Your task to perform on an android device: Search for macbook pro on target.com, select the first entry, and add it to the cart. Image 0: 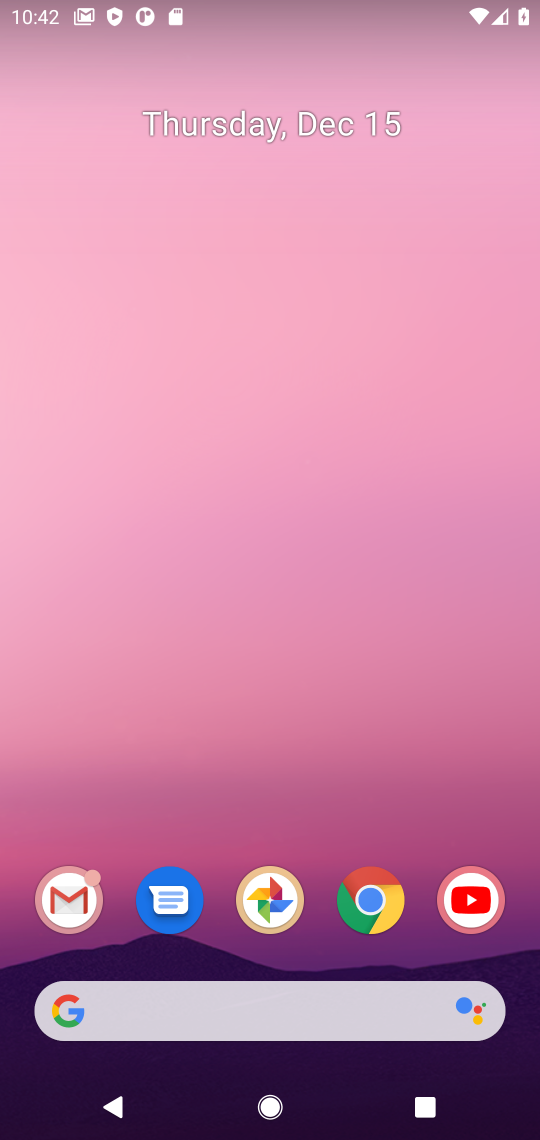
Step 0: click (389, 902)
Your task to perform on an android device: Search for macbook pro on target.com, select the first entry, and add it to the cart. Image 1: 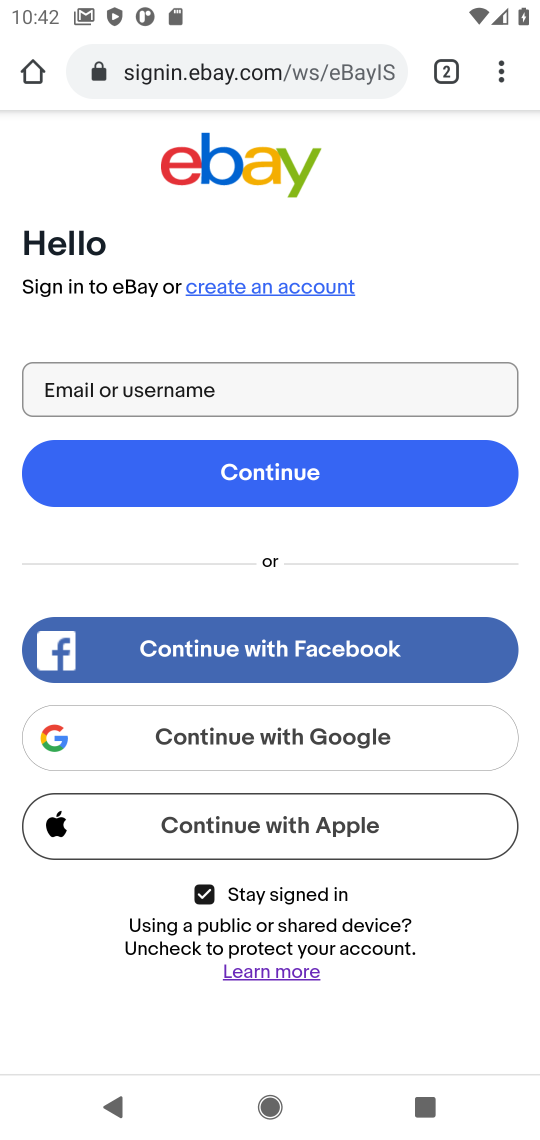
Step 1: click (168, 70)
Your task to perform on an android device: Search for macbook pro on target.com, select the first entry, and add it to the cart. Image 2: 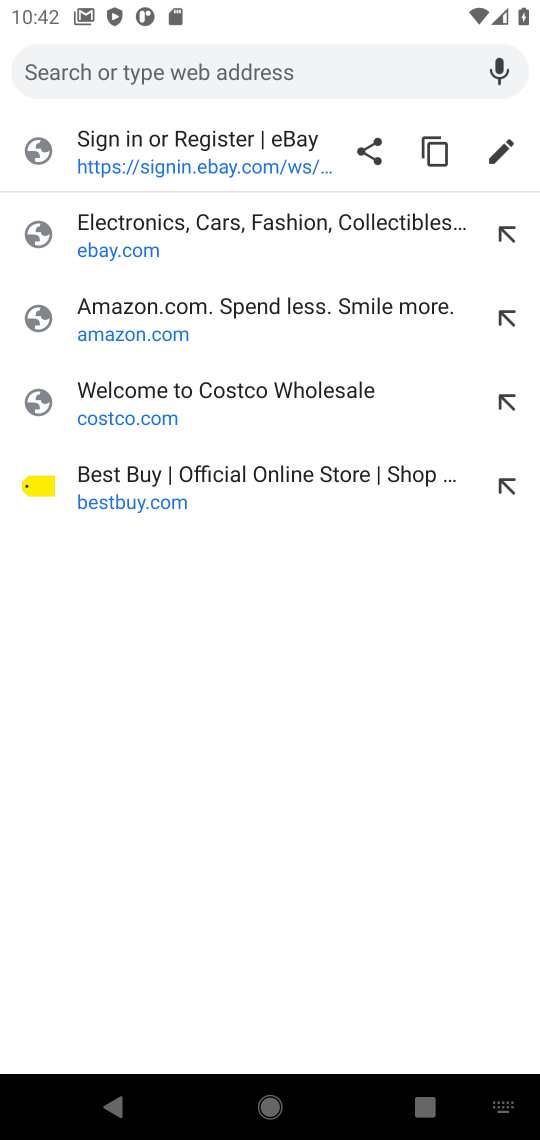
Step 2: type "target.com"
Your task to perform on an android device: Search for macbook pro on target.com, select the first entry, and add it to the cart. Image 3: 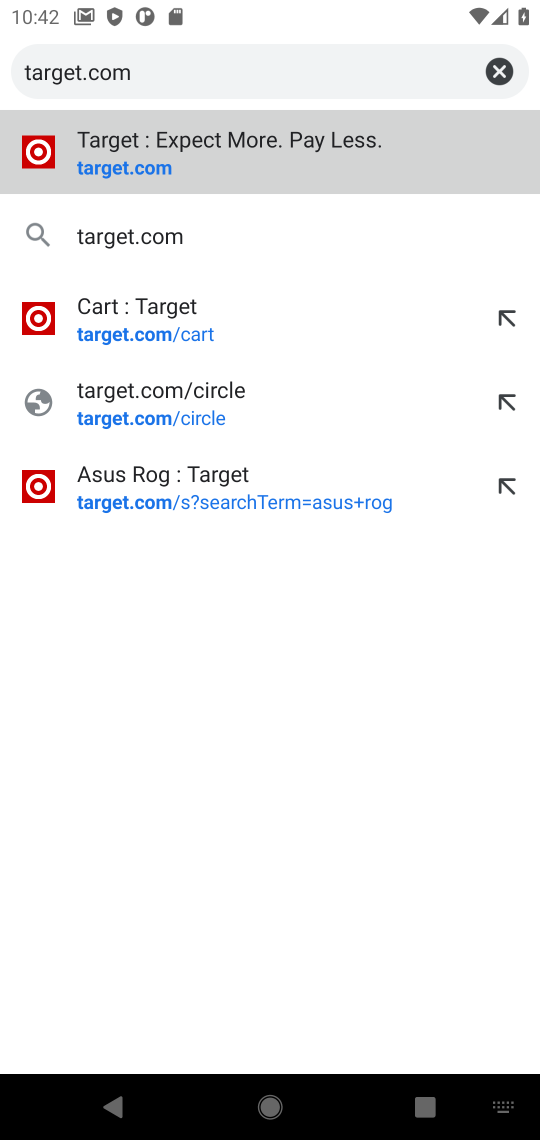
Step 3: click (238, 156)
Your task to perform on an android device: Search for macbook pro on target.com, select the first entry, and add it to the cart. Image 4: 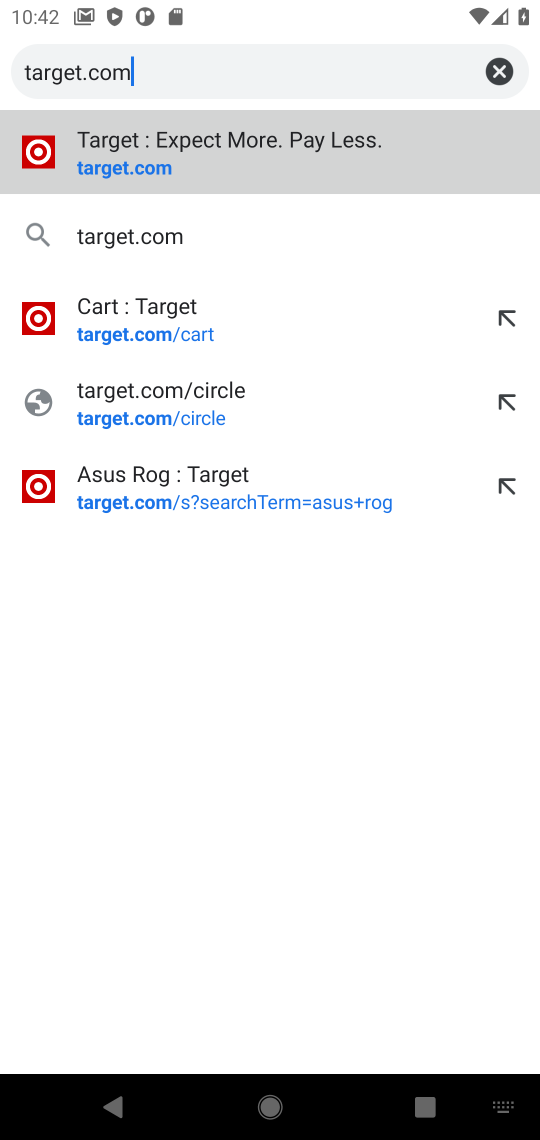
Step 4: click (238, 156)
Your task to perform on an android device: Search for macbook pro on target.com, select the first entry, and add it to the cart. Image 5: 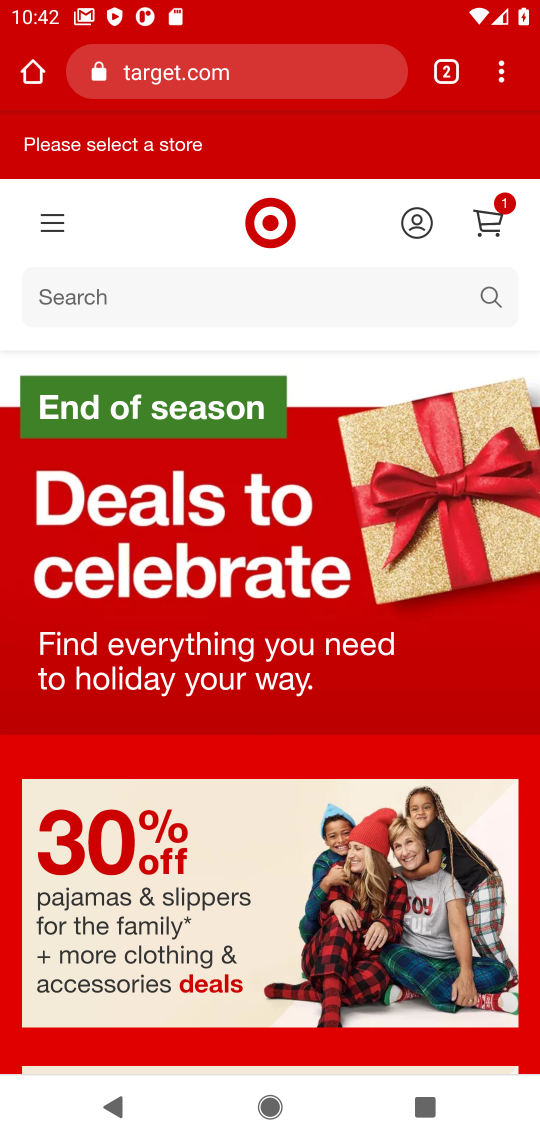
Step 5: click (164, 300)
Your task to perform on an android device: Search for macbook pro on target.com, select the first entry, and add it to the cart. Image 6: 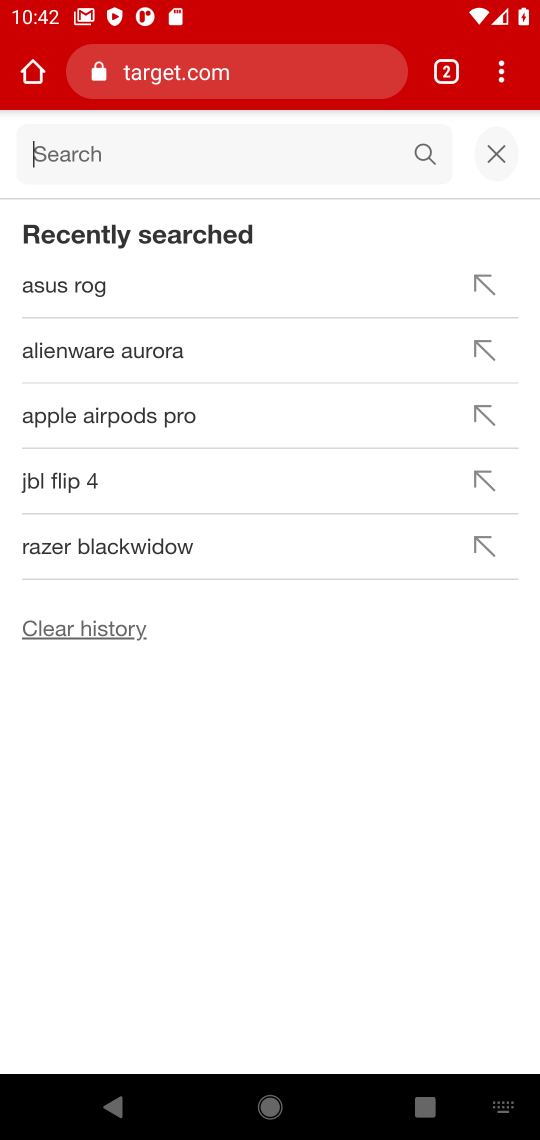
Step 6: type "macbook pro"
Your task to perform on an android device: Search for macbook pro on target.com, select the first entry, and add it to the cart. Image 7: 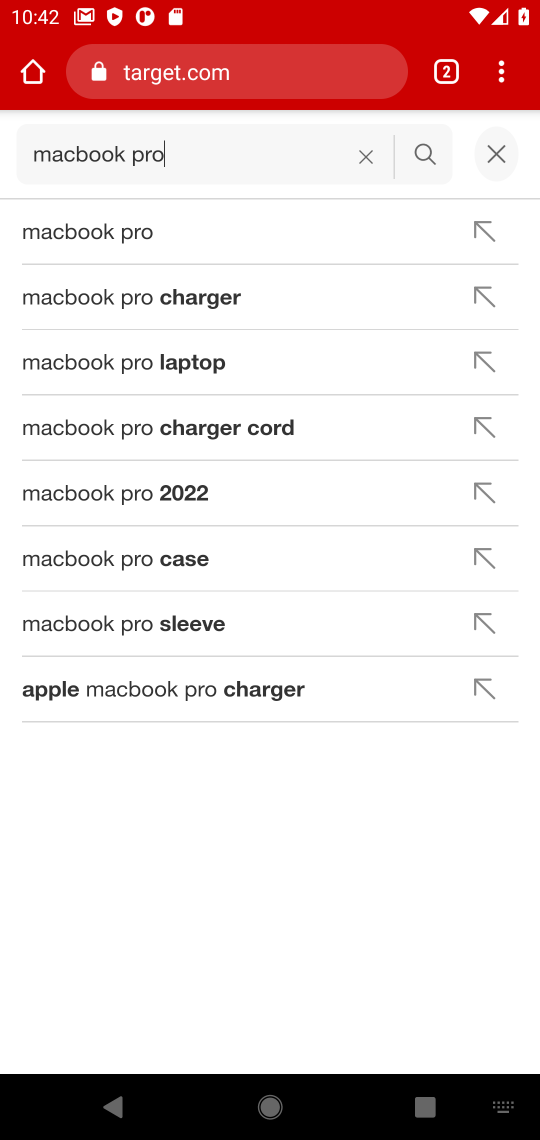
Step 7: press enter
Your task to perform on an android device: Search for macbook pro on target.com, select the first entry, and add it to the cart. Image 8: 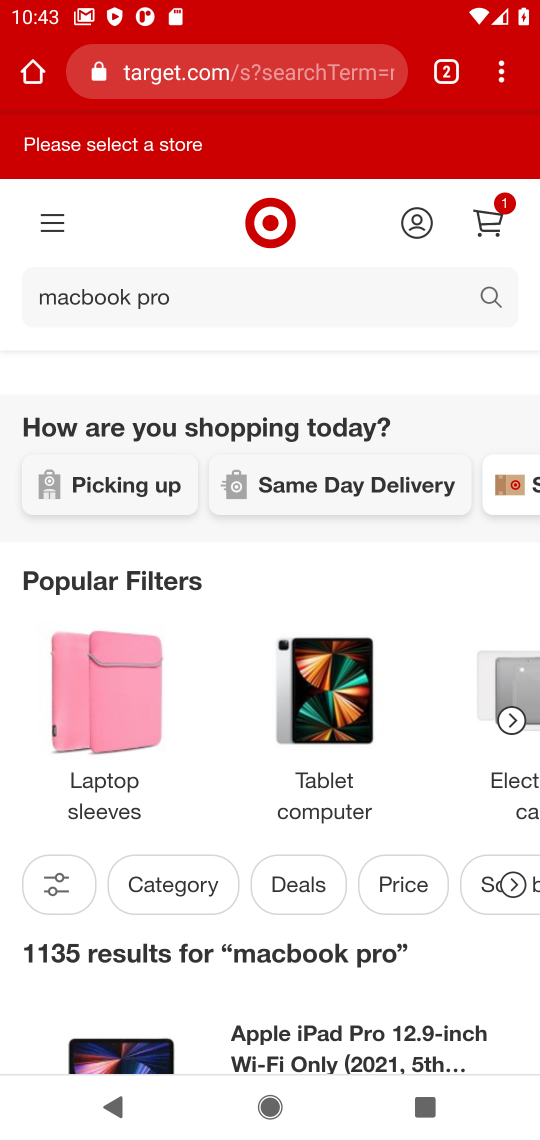
Step 8: task complete